Your task to perform on an android device: What's the news this week? Image 0: 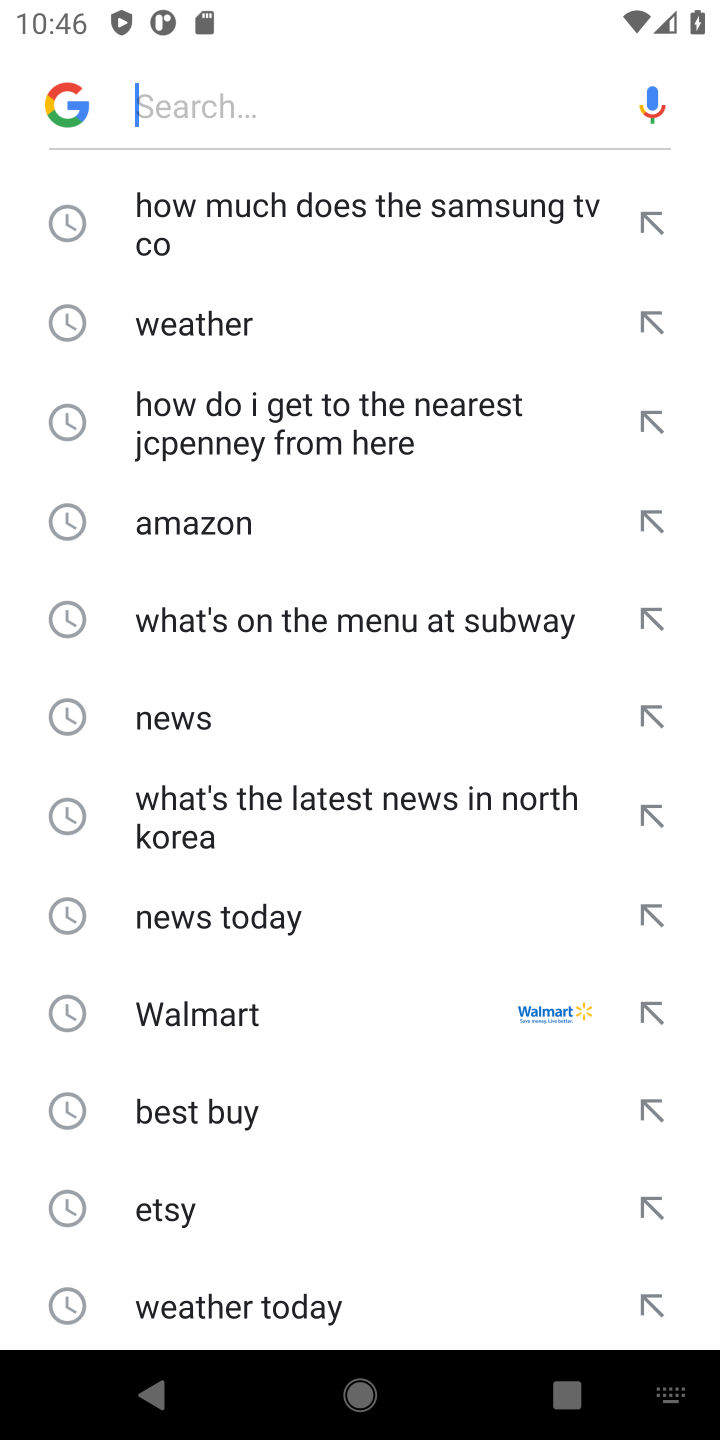
Step 0: type "What's the news this week?"
Your task to perform on an android device: What's the news this week? Image 1: 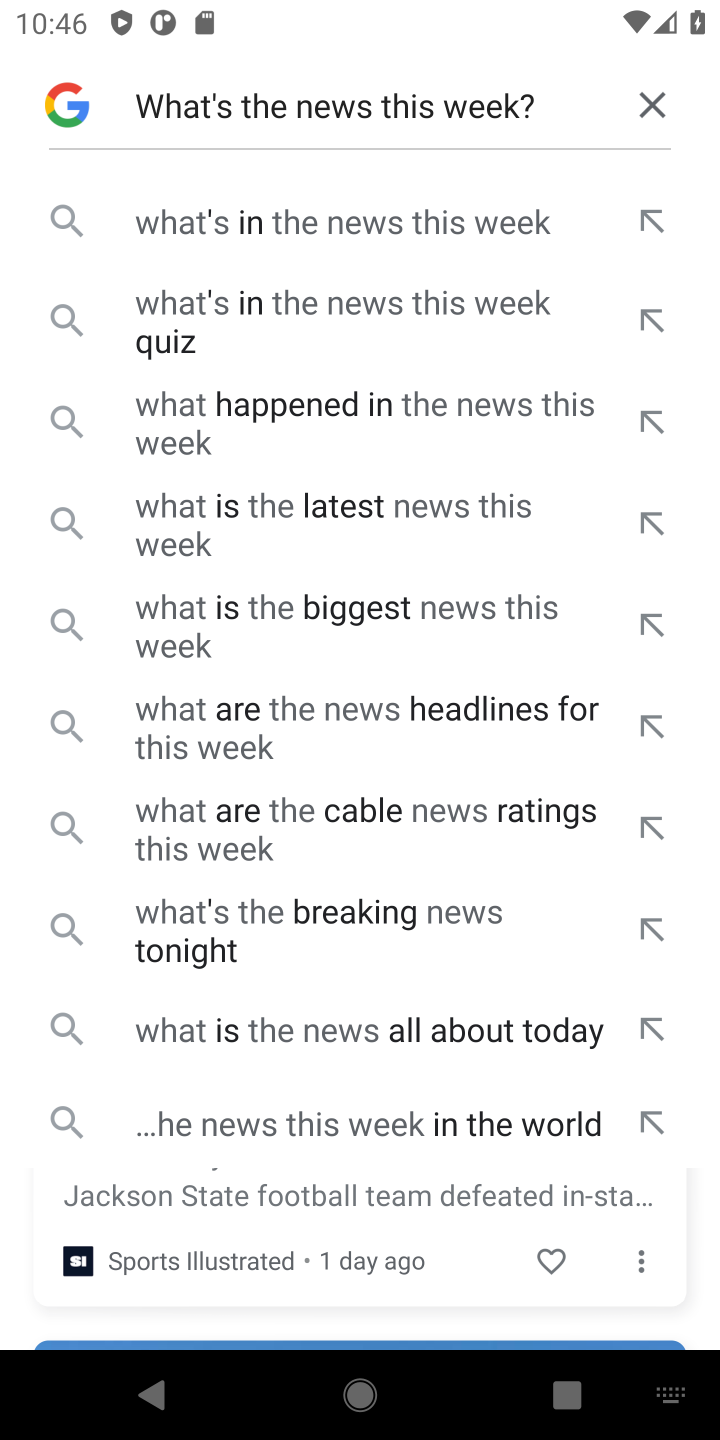
Step 1: click (319, 223)
Your task to perform on an android device: What's the news this week? Image 2: 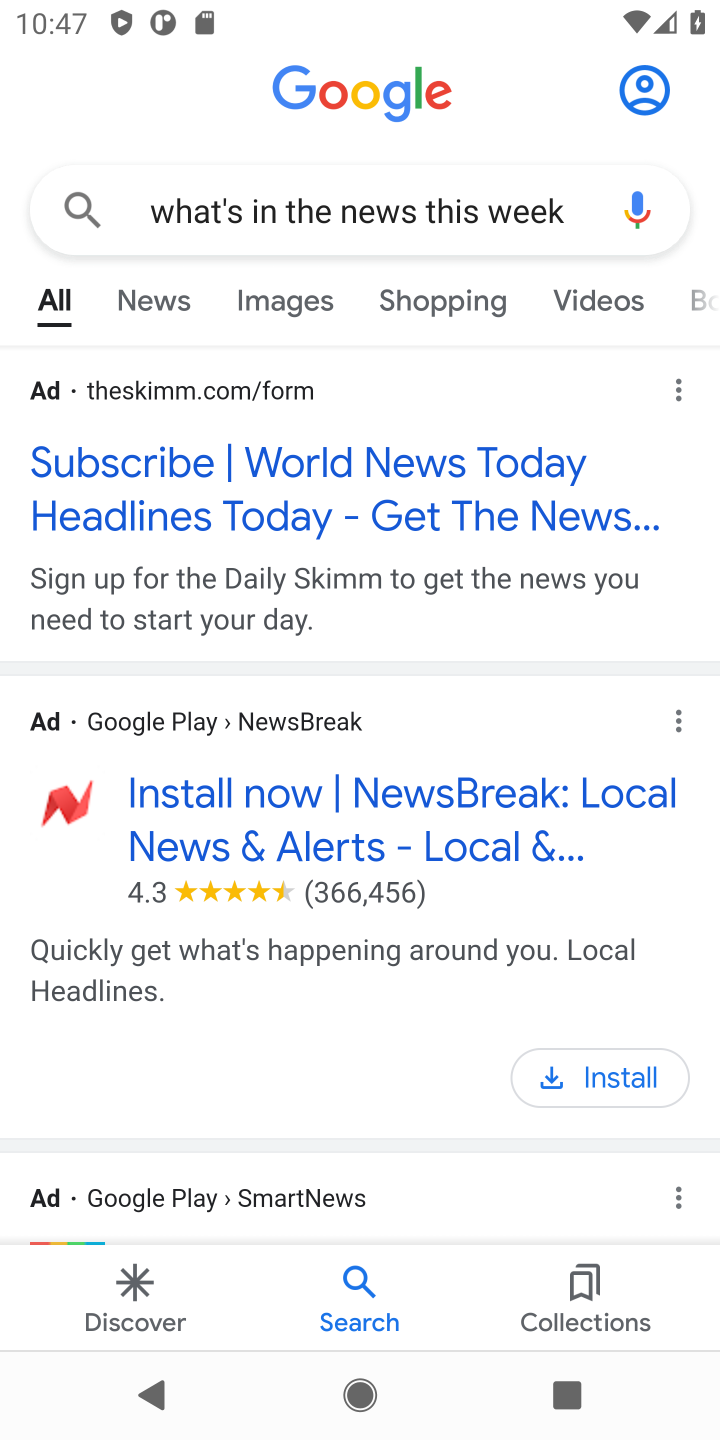
Step 2: task complete